Your task to perform on an android device: Open internet settings Image 0: 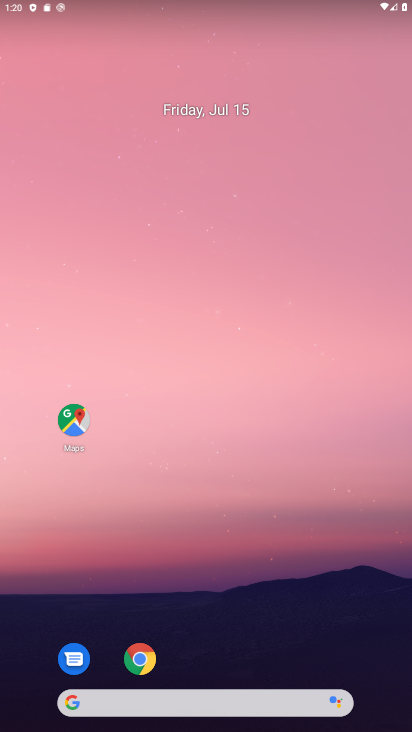
Step 0: drag from (257, 678) to (315, 270)
Your task to perform on an android device: Open internet settings Image 1: 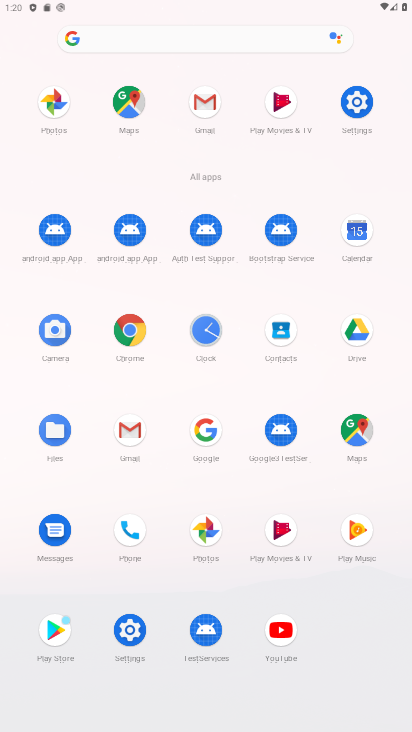
Step 1: click (125, 634)
Your task to perform on an android device: Open internet settings Image 2: 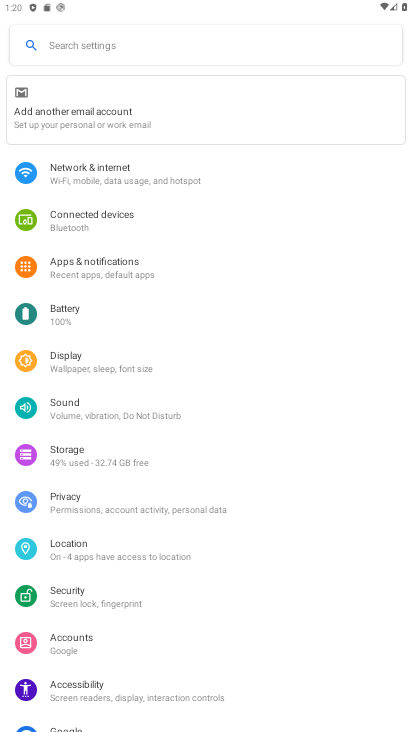
Step 2: click (157, 173)
Your task to perform on an android device: Open internet settings Image 3: 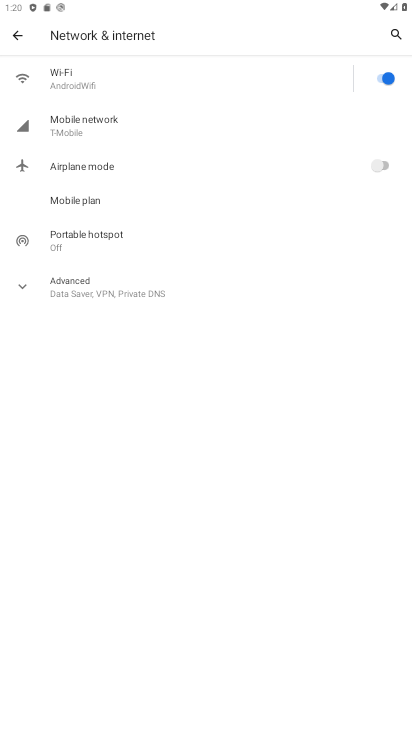
Step 3: click (146, 129)
Your task to perform on an android device: Open internet settings Image 4: 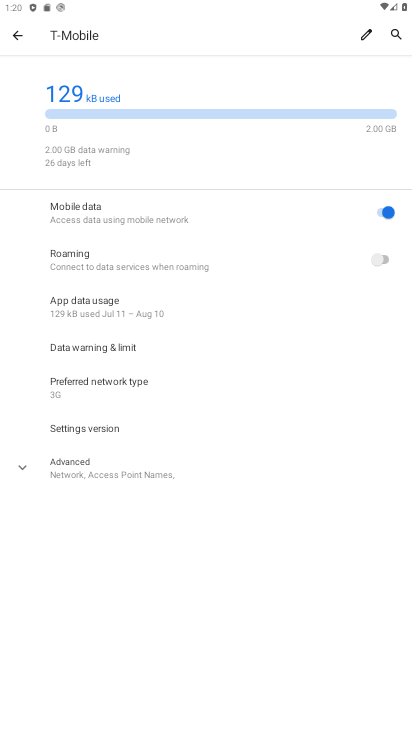
Step 4: task complete